Your task to perform on an android device: turn off picture-in-picture Image 0: 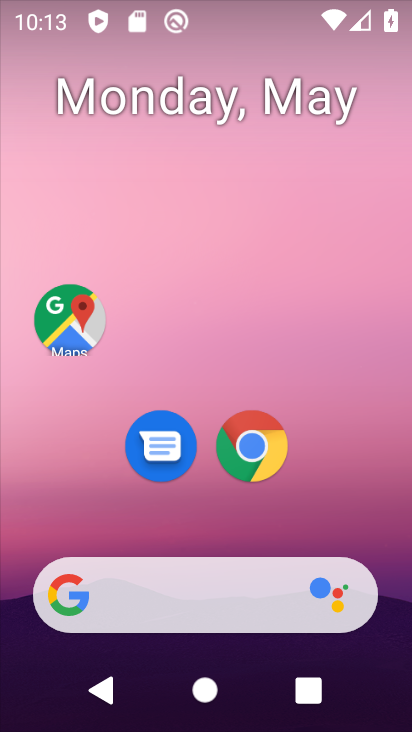
Step 0: drag from (374, 511) to (361, 40)
Your task to perform on an android device: turn off picture-in-picture Image 1: 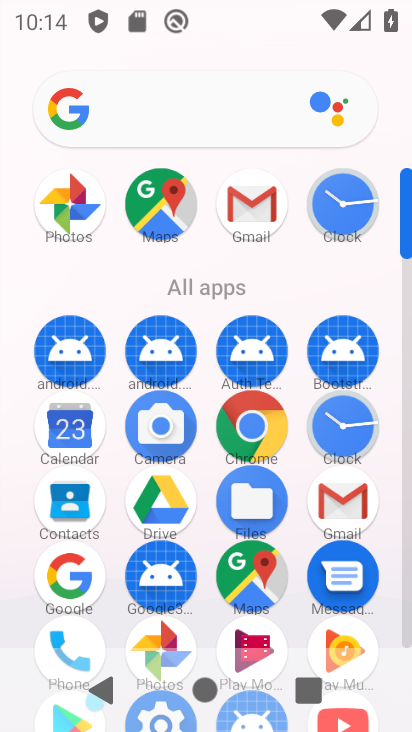
Step 1: click (249, 415)
Your task to perform on an android device: turn off picture-in-picture Image 2: 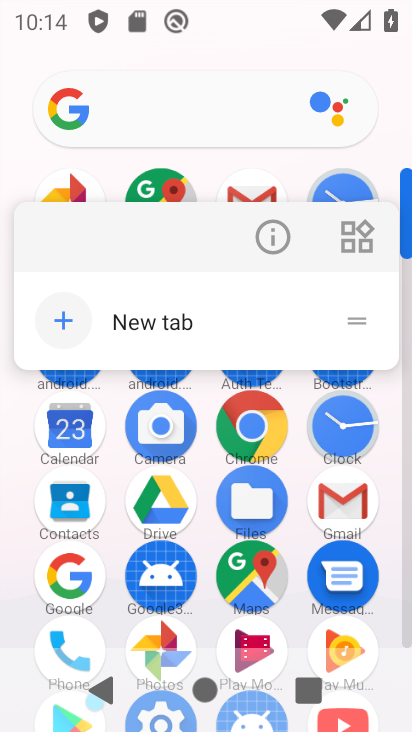
Step 2: click (258, 258)
Your task to perform on an android device: turn off picture-in-picture Image 3: 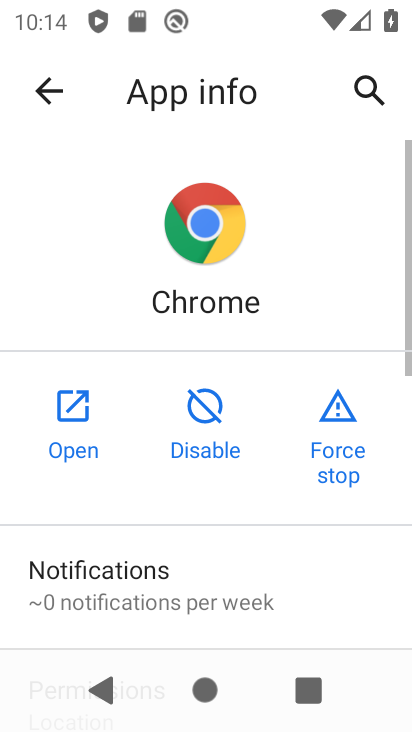
Step 3: drag from (265, 595) to (265, 232)
Your task to perform on an android device: turn off picture-in-picture Image 4: 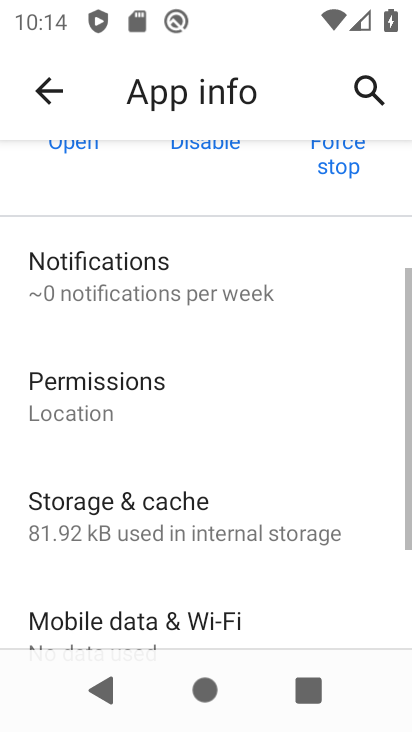
Step 4: drag from (241, 539) to (207, 218)
Your task to perform on an android device: turn off picture-in-picture Image 5: 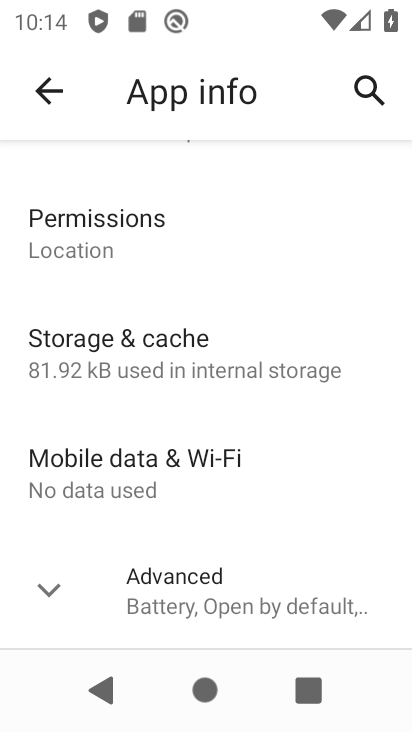
Step 5: click (211, 573)
Your task to perform on an android device: turn off picture-in-picture Image 6: 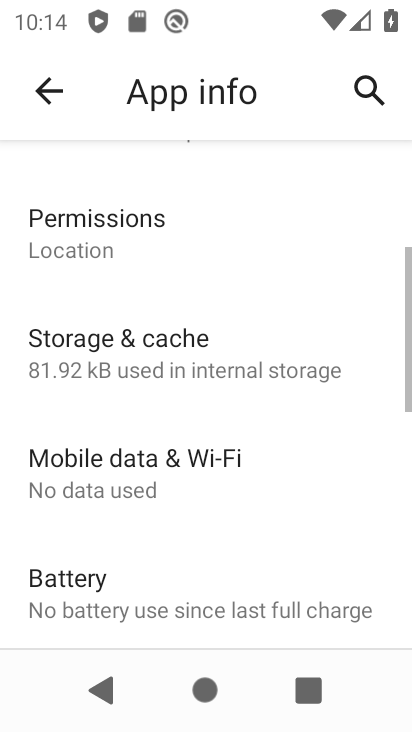
Step 6: drag from (218, 558) to (200, 201)
Your task to perform on an android device: turn off picture-in-picture Image 7: 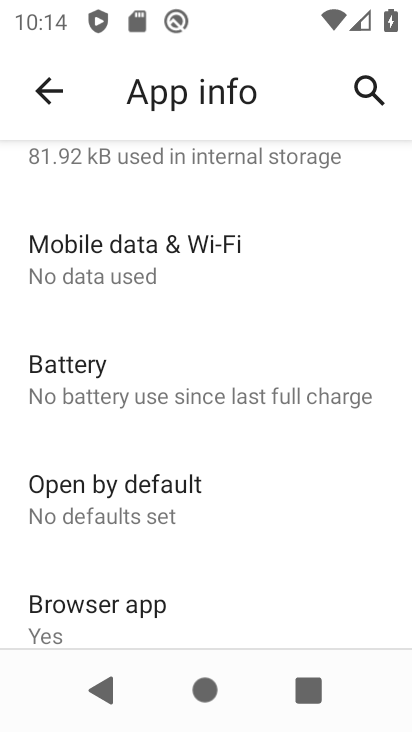
Step 7: drag from (228, 510) to (210, 131)
Your task to perform on an android device: turn off picture-in-picture Image 8: 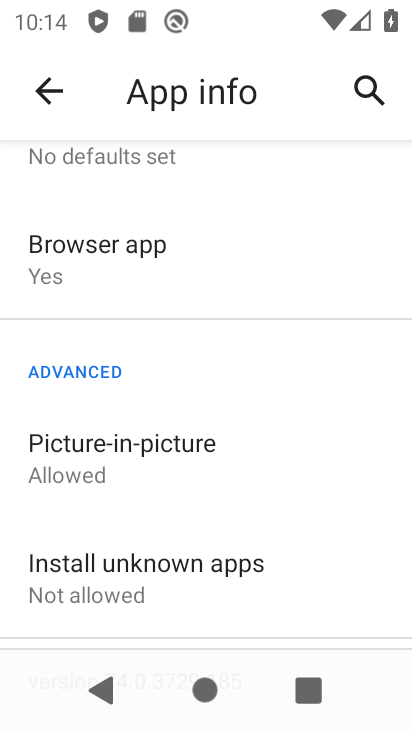
Step 8: click (126, 462)
Your task to perform on an android device: turn off picture-in-picture Image 9: 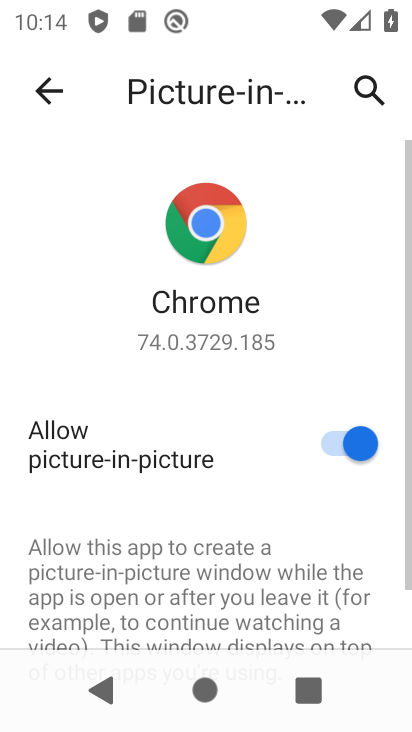
Step 9: click (334, 424)
Your task to perform on an android device: turn off picture-in-picture Image 10: 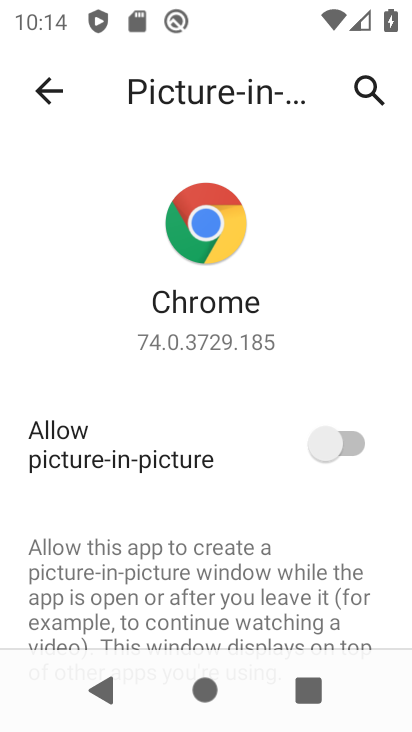
Step 10: task complete